Your task to perform on an android device: Do I have any events this weekend? Image 0: 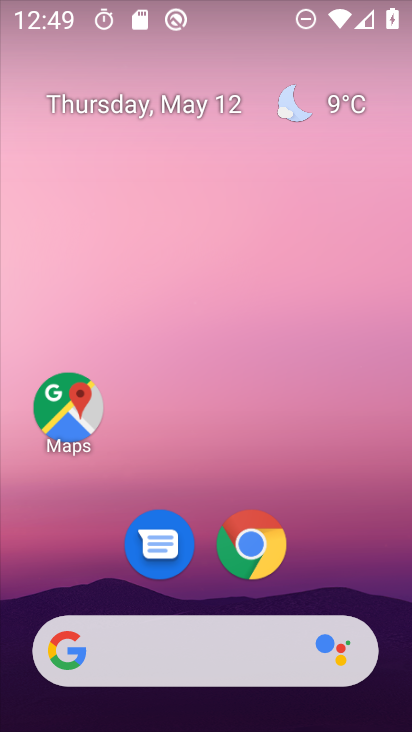
Step 0: drag from (195, 726) to (198, 142)
Your task to perform on an android device: Do I have any events this weekend? Image 1: 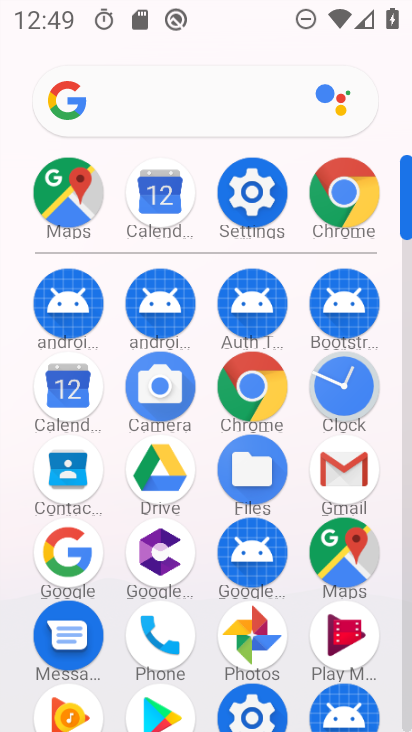
Step 1: click (64, 397)
Your task to perform on an android device: Do I have any events this weekend? Image 2: 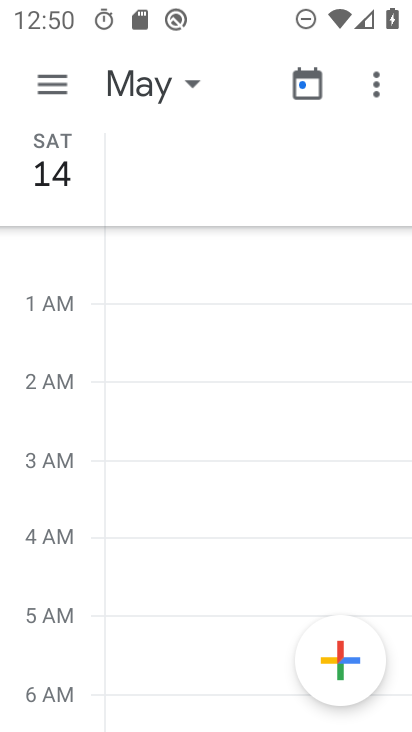
Step 2: click (49, 85)
Your task to perform on an android device: Do I have any events this weekend? Image 3: 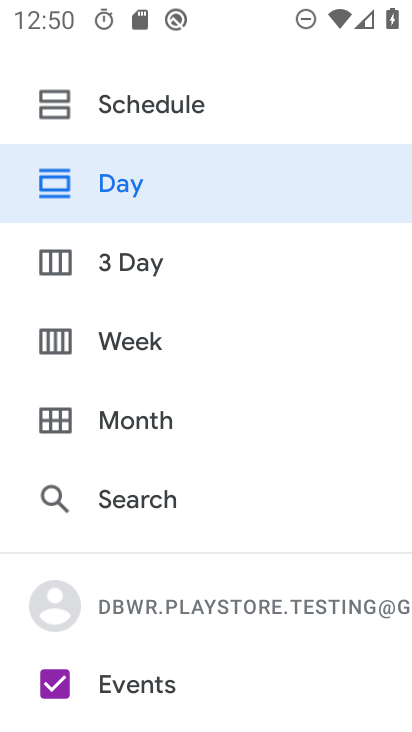
Step 3: drag from (194, 683) to (198, 390)
Your task to perform on an android device: Do I have any events this weekend? Image 4: 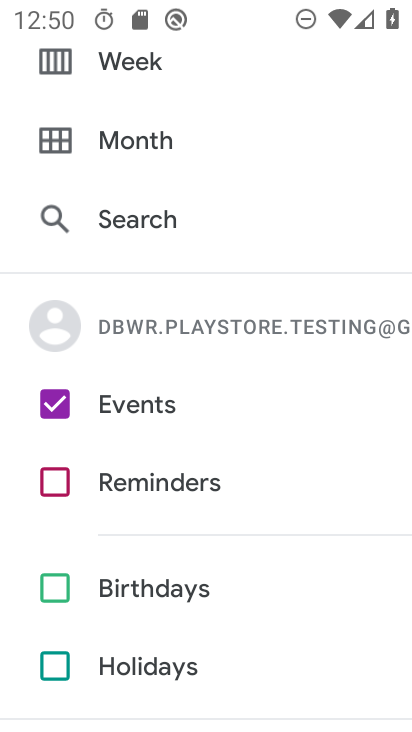
Step 4: drag from (223, 224) to (224, 499)
Your task to perform on an android device: Do I have any events this weekend? Image 5: 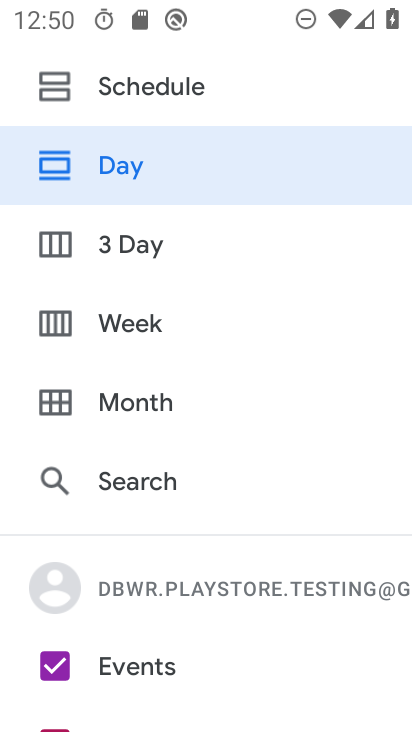
Step 5: click (120, 315)
Your task to perform on an android device: Do I have any events this weekend? Image 6: 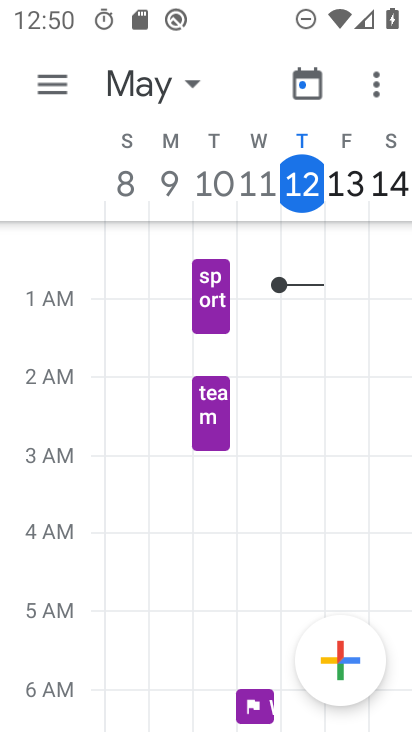
Step 6: click (387, 186)
Your task to perform on an android device: Do I have any events this weekend? Image 7: 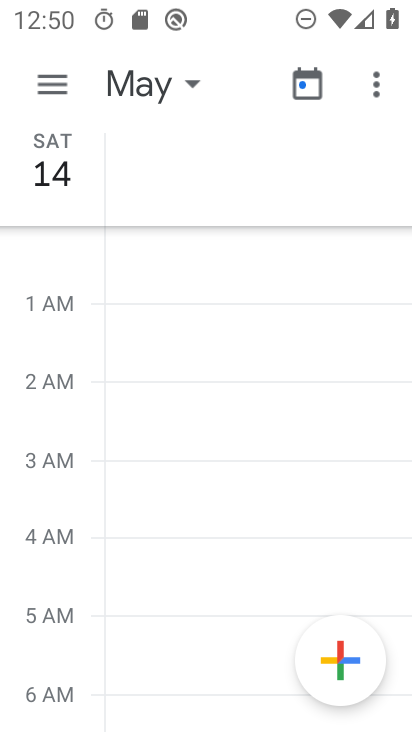
Step 7: task complete